Your task to perform on an android device: Open Maps and search for coffee Image 0: 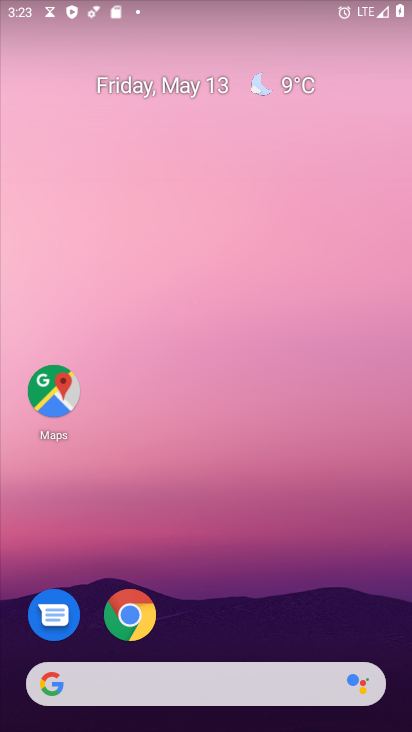
Step 0: drag from (224, 727) to (203, 157)
Your task to perform on an android device: Open Maps and search for coffee Image 1: 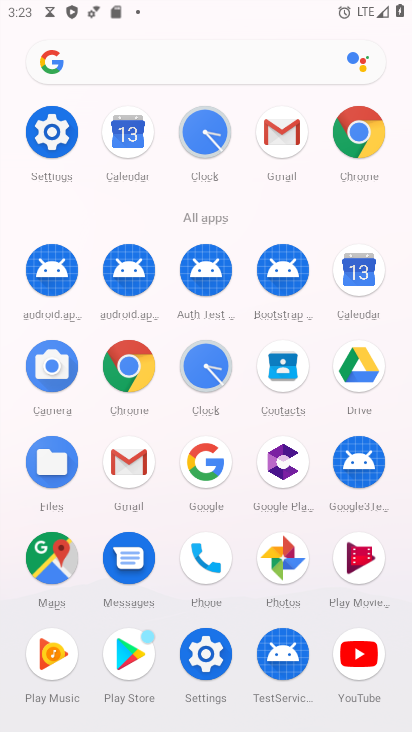
Step 1: click (53, 557)
Your task to perform on an android device: Open Maps and search for coffee Image 2: 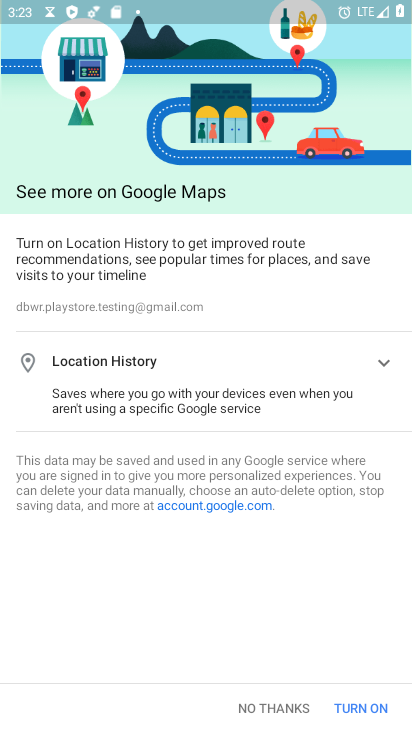
Step 2: click (364, 702)
Your task to perform on an android device: Open Maps and search for coffee Image 3: 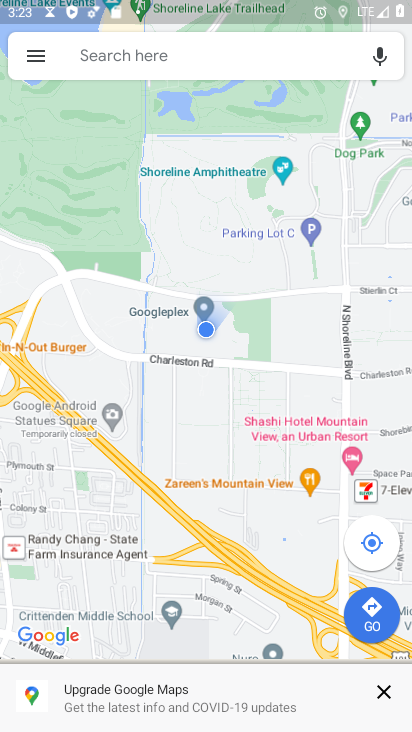
Step 3: click (215, 51)
Your task to perform on an android device: Open Maps and search for coffee Image 4: 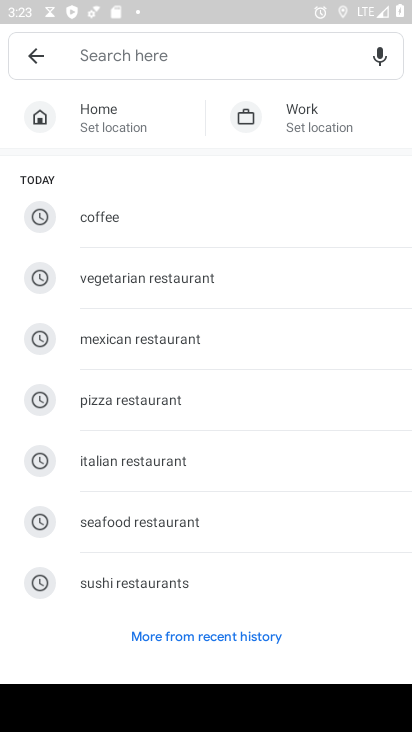
Step 4: type "Coffee"
Your task to perform on an android device: Open Maps and search for coffee Image 5: 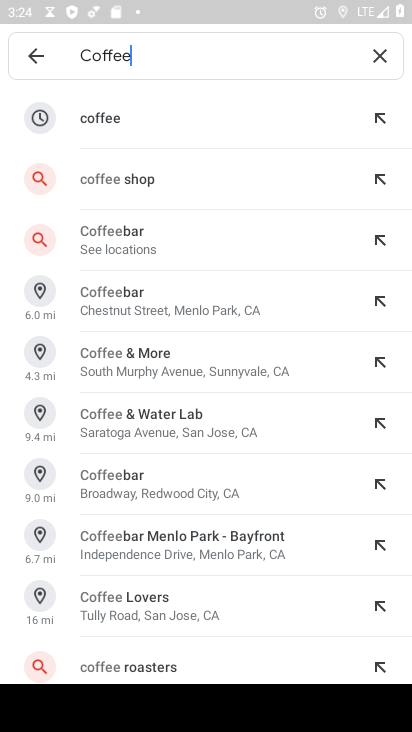
Step 5: click (110, 118)
Your task to perform on an android device: Open Maps and search for coffee Image 6: 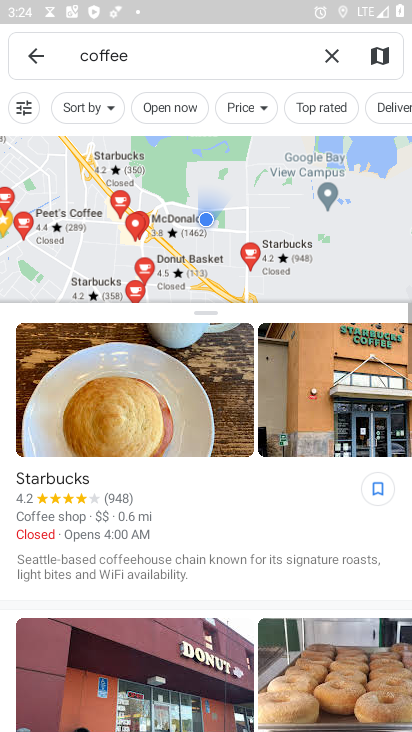
Step 6: task complete